Your task to perform on an android device: Go to battery settings Image 0: 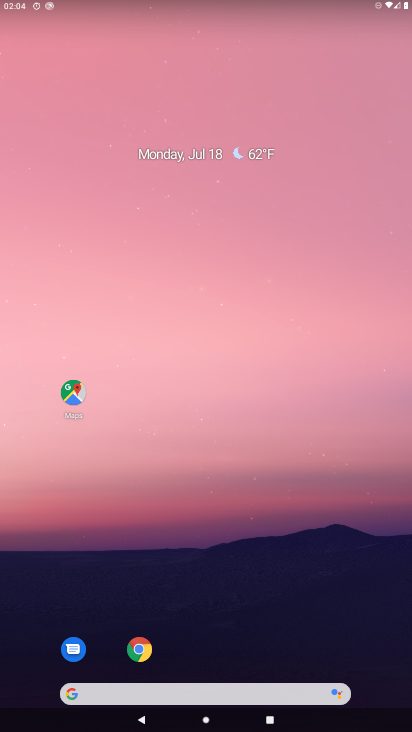
Step 0: drag from (54, 670) to (153, 235)
Your task to perform on an android device: Go to battery settings Image 1: 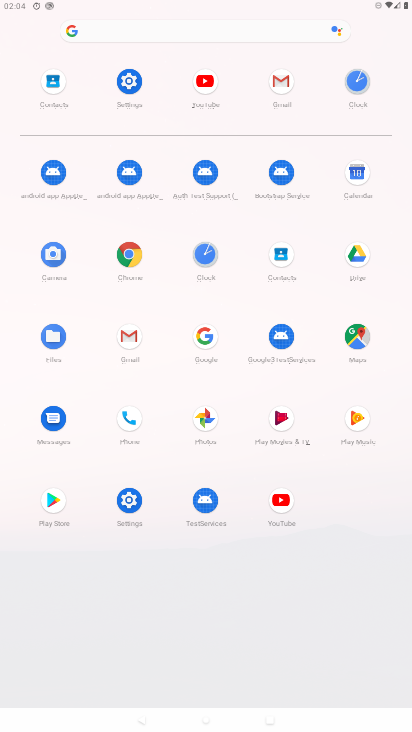
Step 1: click (126, 497)
Your task to perform on an android device: Go to battery settings Image 2: 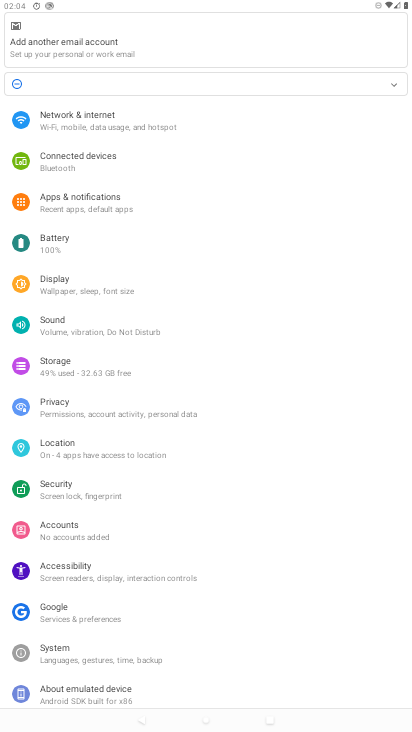
Step 2: click (63, 249)
Your task to perform on an android device: Go to battery settings Image 3: 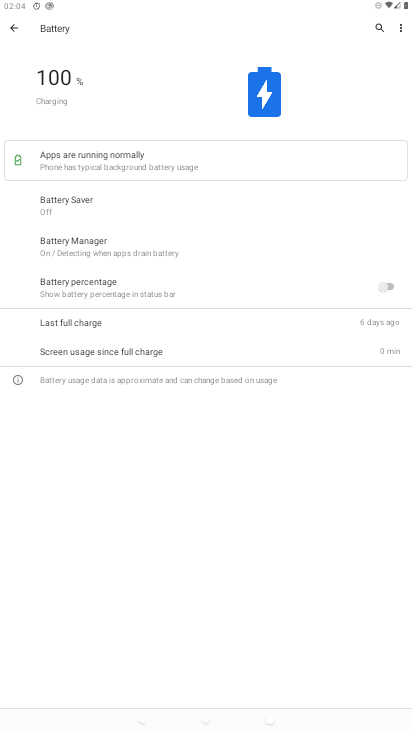
Step 3: task complete